Your task to perform on an android device: Open Google Chrome Image 0: 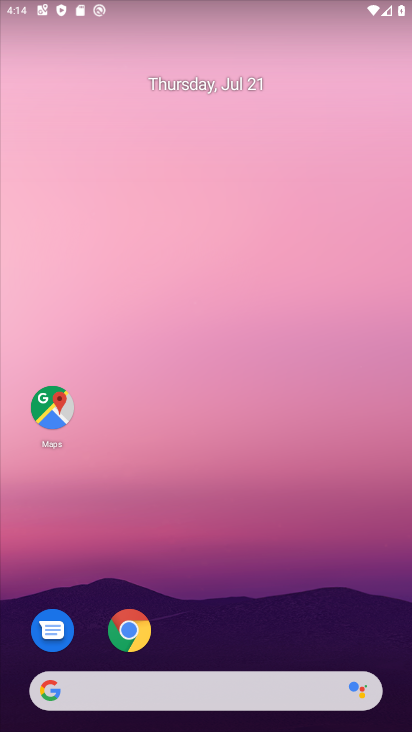
Step 0: click (128, 632)
Your task to perform on an android device: Open Google Chrome Image 1: 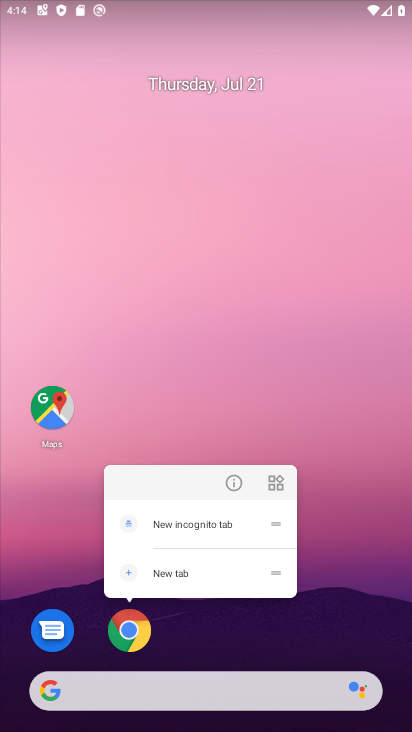
Step 1: click (140, 638)
Your task to perform on an android device: Open Google Chrome Image 2: 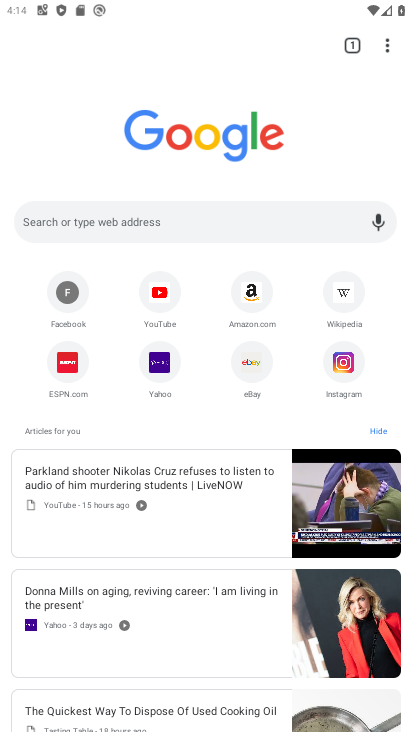
Step 2: press home button
Your task to perform on an android device: Open Google Chrome Image 3: 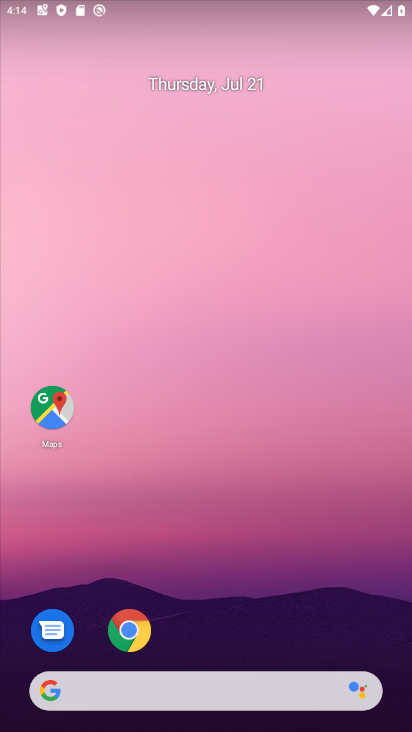
Step 3: click (135, 630)
Your task to perform on an android device: Open Google Chrome Image 4: 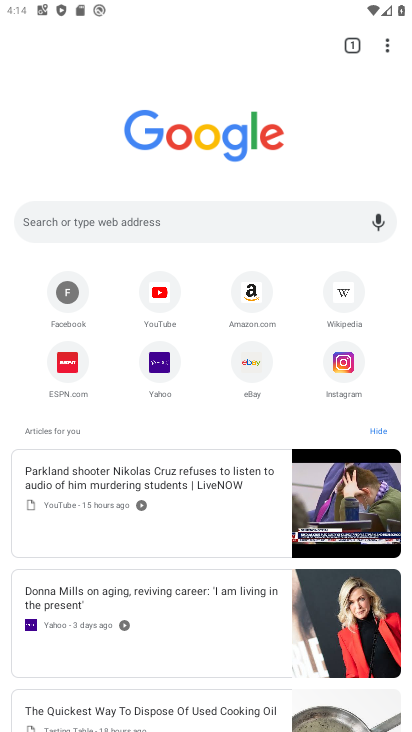
Step 4: task complete